Your task to perform on an android device: Search for sushi restaurants on Maps Image 0: 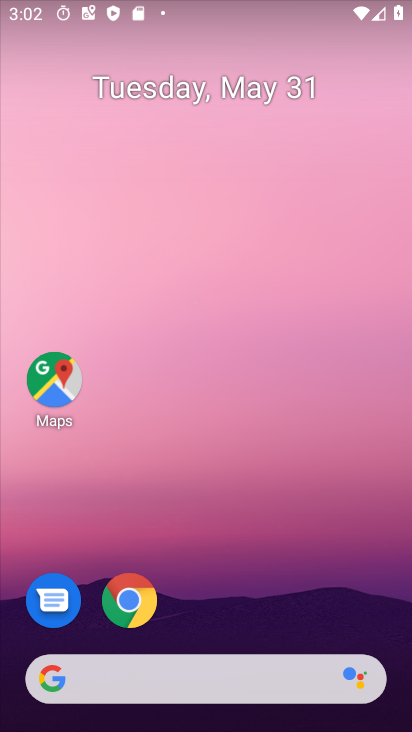
Step 0: press home button
Your task to perform on an android device: Search for sushi restaurants on Maps Image 1: 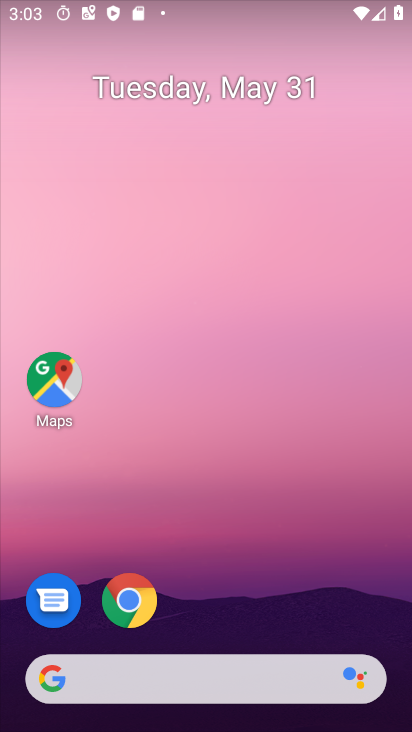
Step 1: click (49, 375)
Your task to perform on an android device: Search for sushi restaurants on Maps Image 2: 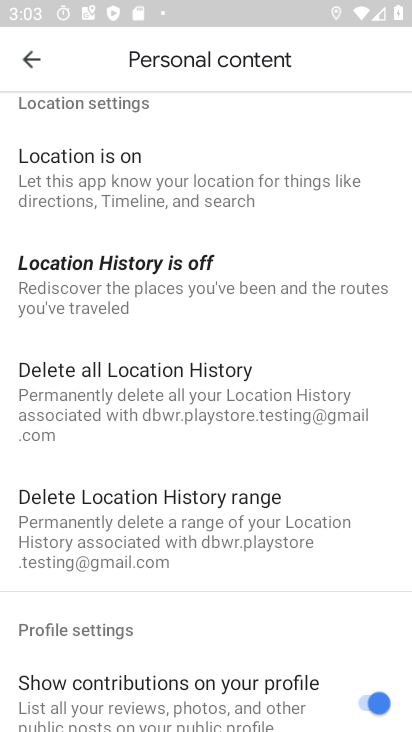
Step 2: press home button
Your task to perform on an android device: Search for sushi restaurants on Maps Image 3: 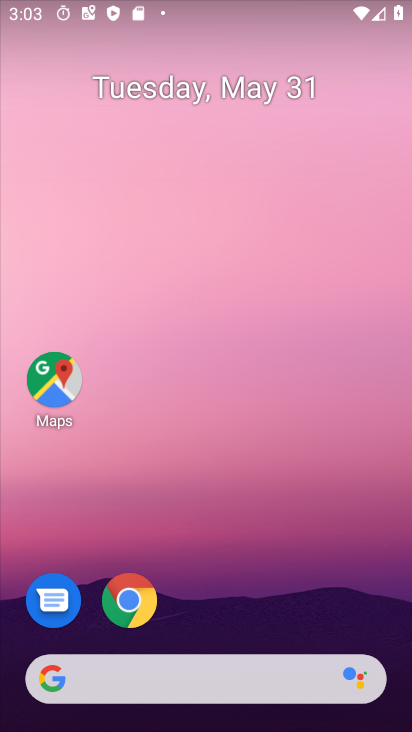
Step 3: click (50, 373)
Your task to perform on an android device: Search for sushi restaurants on Maps Image 4: 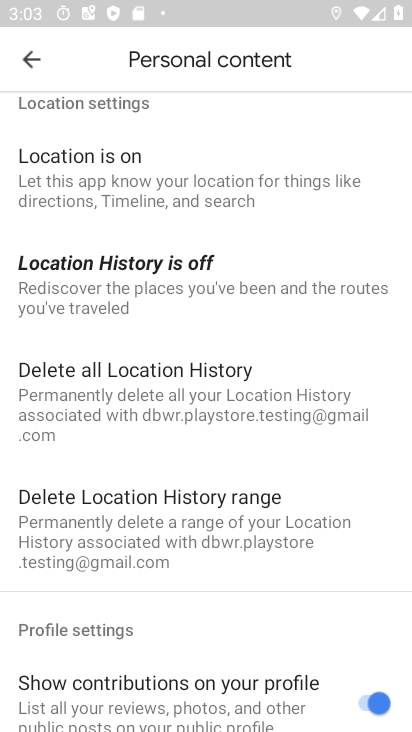
Step 4: click (35, 56)
Your task to perform on an android device: Search for sushi restaurants on Maps Image 5: 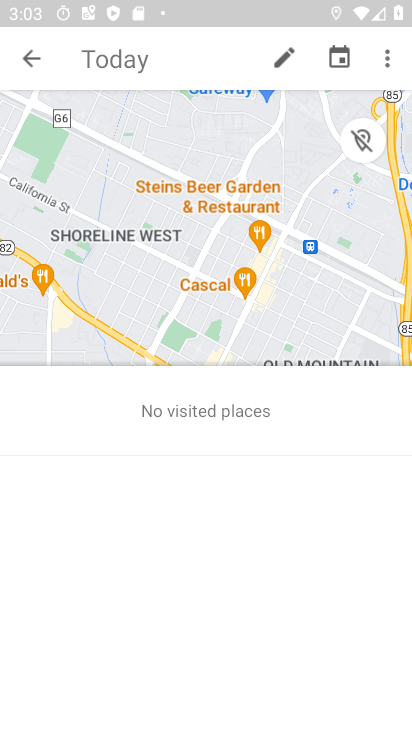
Step 5: click (32, 57)
Your task to perform on an android device: Search for sushi restaurants on Maps Image 6: 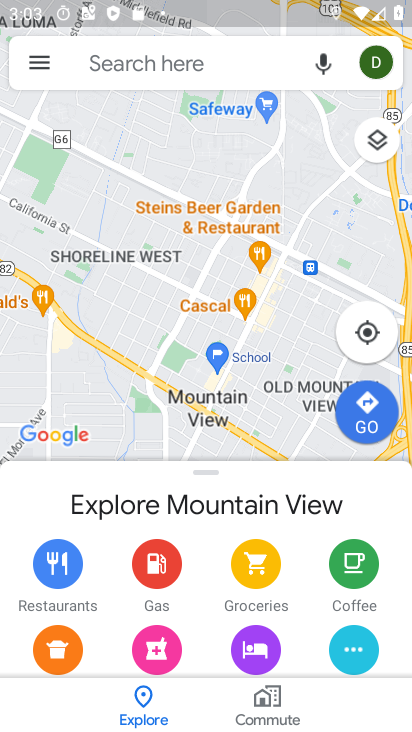
Step 6: click (146, 54)
Your task to perform on an android device: Search for sushi restaurants on Maps Image 7: 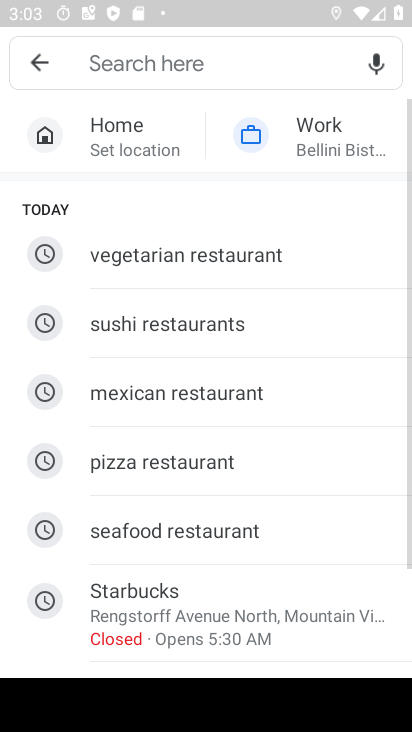
Step 7: click (136, 332)
Your task to perform on an android device: Search for sushi restaurants on Maps Image 8: 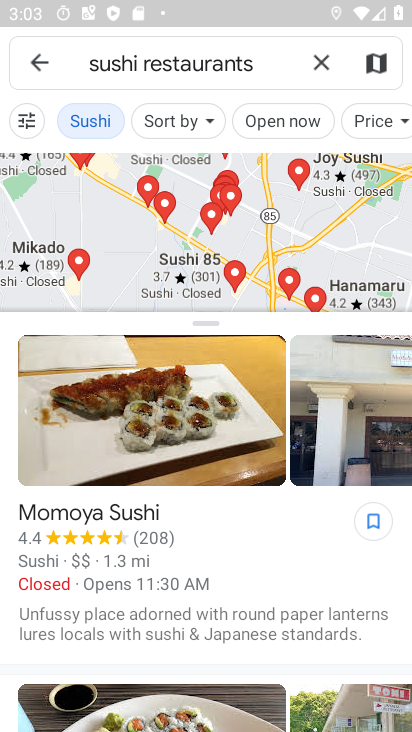
Step 8: click (258, 334)
Your task to perform on an android device: Search for sushi restaurants on Maps Image 9: 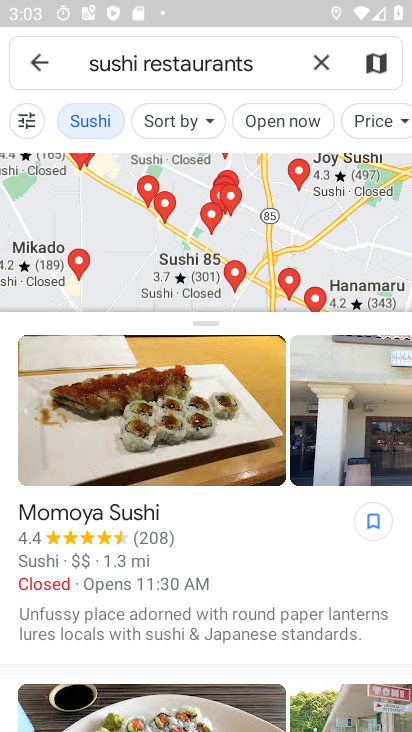
Step 9: task complete